Your task to perform on an android device: Go to notification settings Image 0: 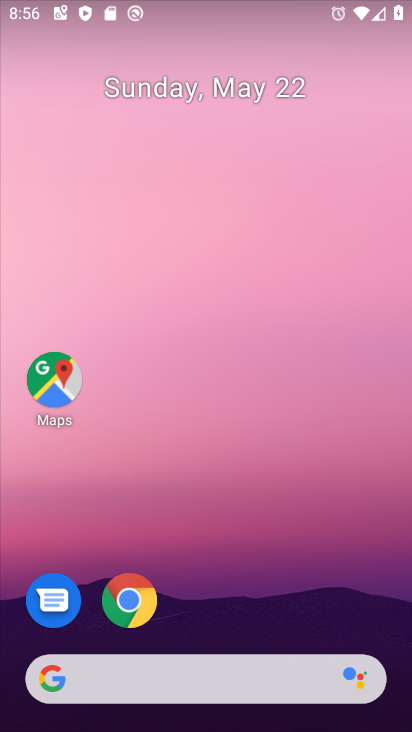
Step 0: drag from (174, 575) to (406, 443)
Your task to perform on an android device: Go to notification settings Image 1: 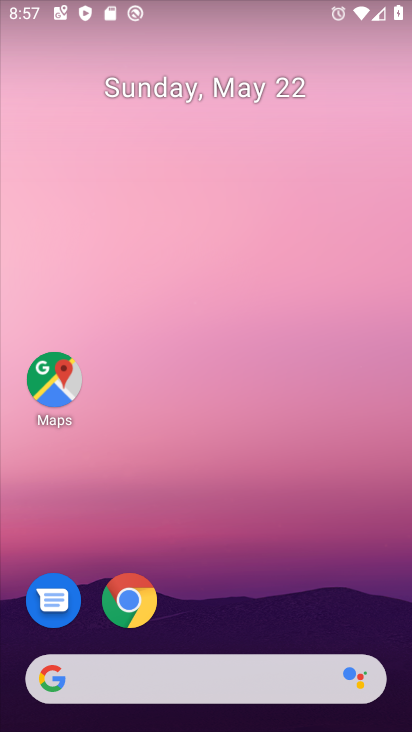
Step 1: drag from (253, 612) to (368, 11)
Your task to perform on an android device: Go to notification settings Image 2: 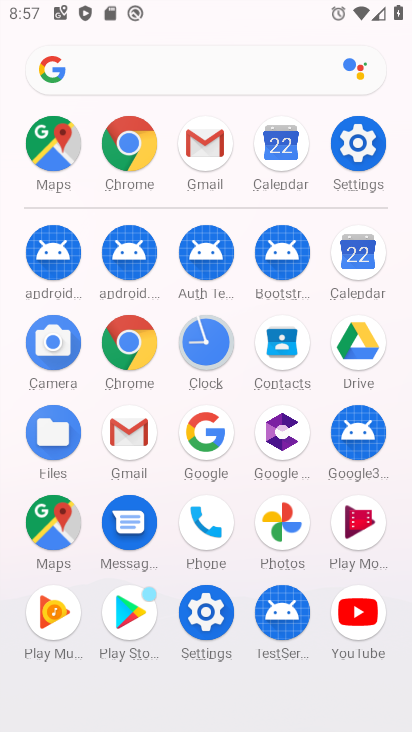
Step 2: click (359, 173)
Your task to perform on an android device: Go to notification settings Image 3: 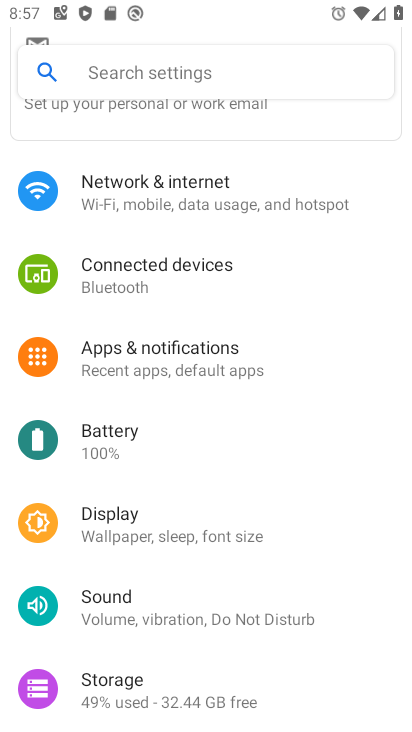
Step 3: click (226, 369)
Your task to perform on an android device: Go to notification settings Image 4: 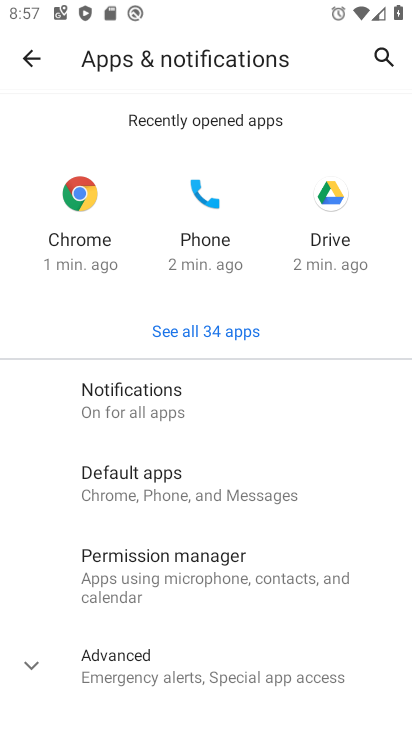
Step 4: click (213, 409)
Your task to perform on an android device: Go to notification settings Image 5: 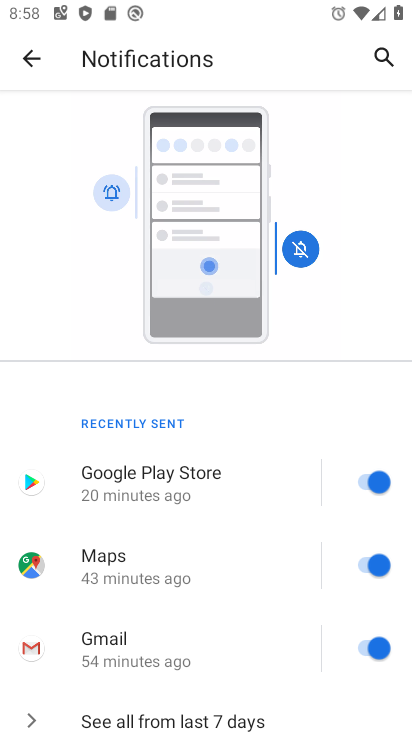
Step 5: task complete